Your task to perform on an android device: toggle priority inbox in the gmail app Image 0: 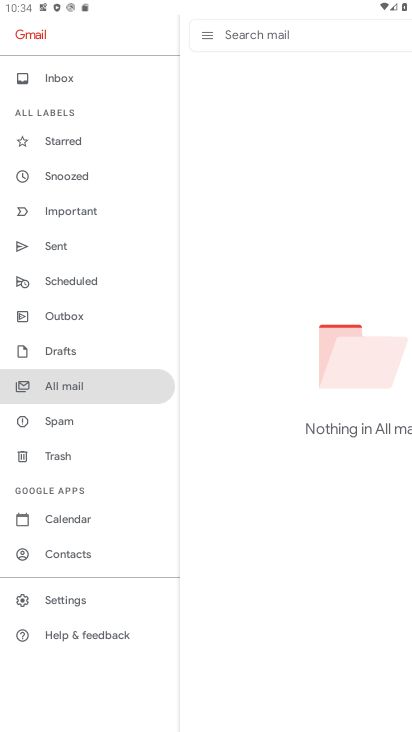
Step 0: press back button
Your task to perform on an android device: toggle priority inbox in the gmail app Image 1: 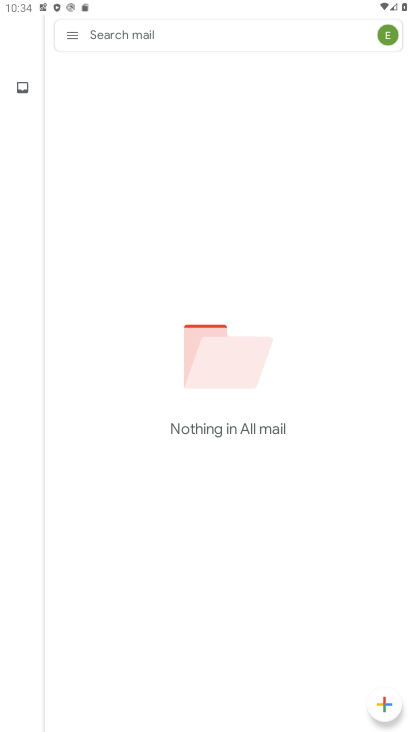
Step 1: click (70, 50)
Your task to perform on an android device: toggle priority inbox in the gmail app Image 2: 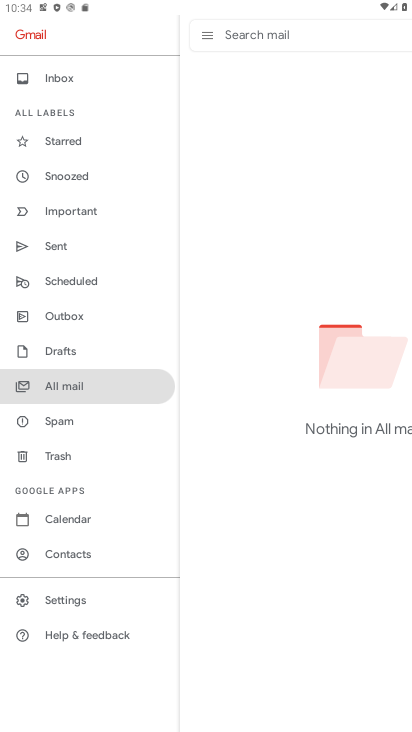
Step 2: click (66, 595)
Your task to perform on an android device: toggle priority inbox in the gmail app Image 3: 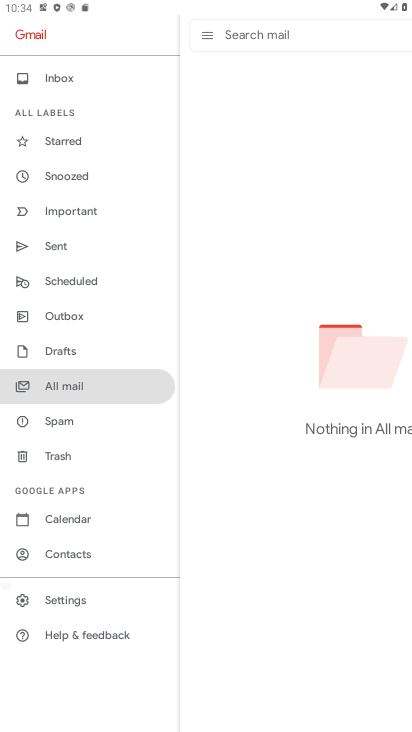
Step 3: click (66, 595)
Your task to perform on an android device: toggle priority inbox in the gmail app Image 4: 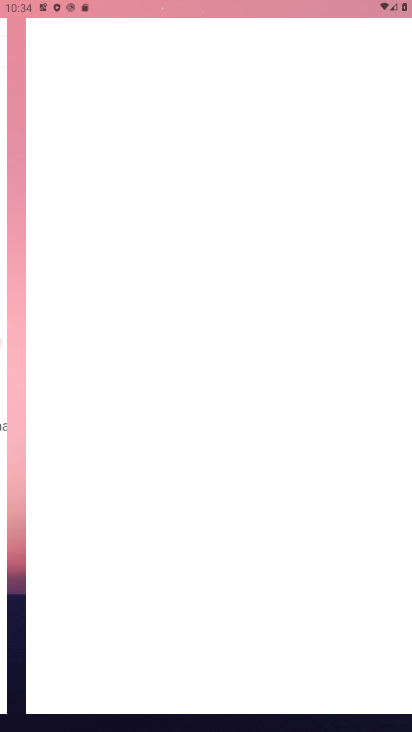
Step 4: click (68, 592)
Your task to perform on an android device: toggle priority inbox in the gmail app Image 5: 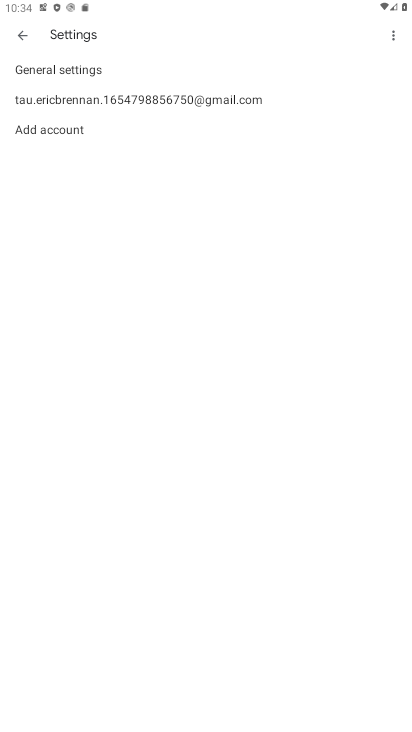
Step 5: click (131, 93)
Your task to perform on an android device: toggle priority inbox in the gmail app Image 6: 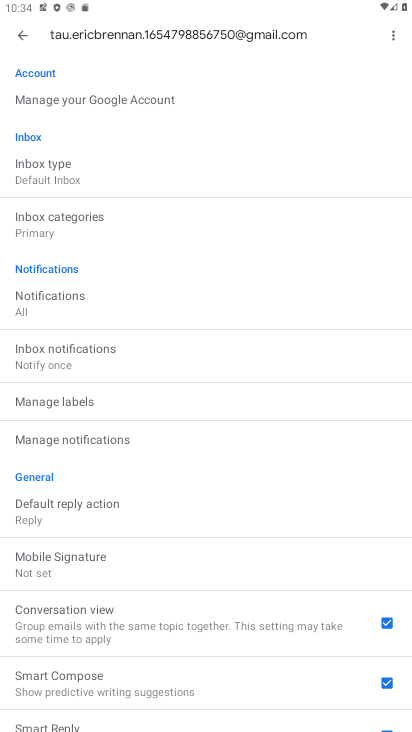
Step 6: click (48, 162)
Your task to perform on an android device: toggle priority inbox in the gmail app Image 7: 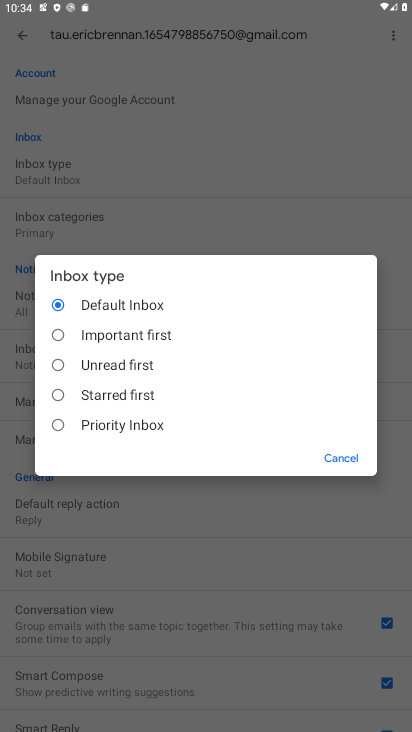
Step 7: click (57, 421)
Your task to perform on an android device: toggle priority inbox in the gmail app Image 8: 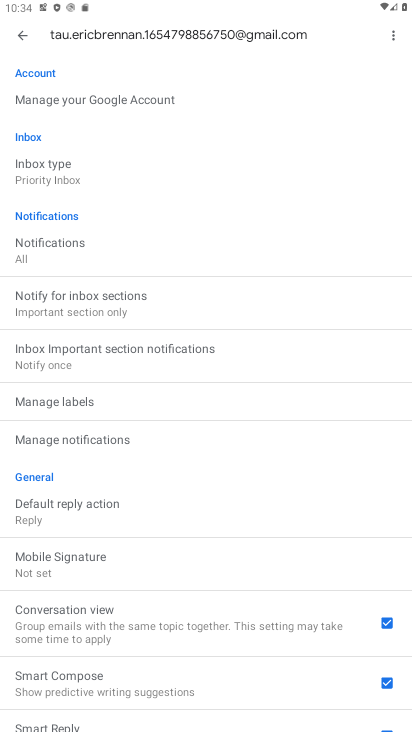
Step 8: task complete